Your task to perform on an android device: Open notification settings Image 0: 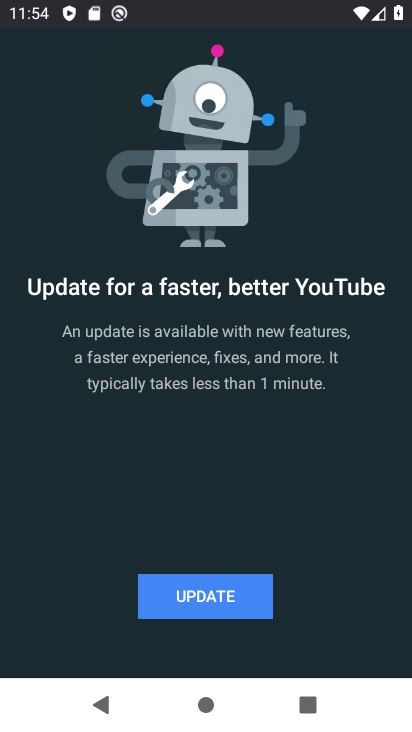
Step 0: press home button
Your task to perform on an android device: Open notification settings Image 1: 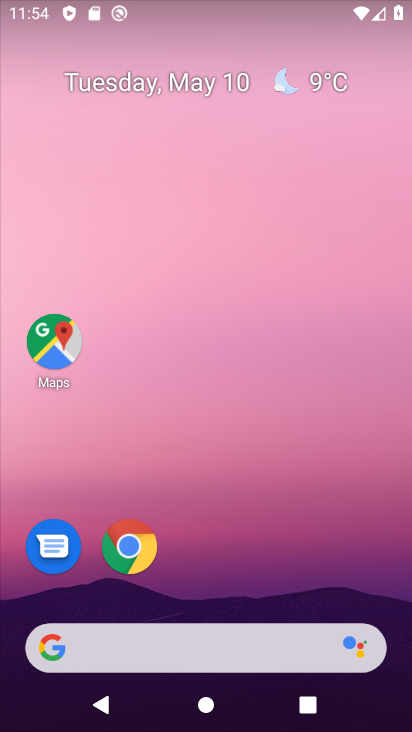
Step 1: drag from (176, 535) to (213, 203)
Your task to perform on an android device: Open notification settings Image 2: 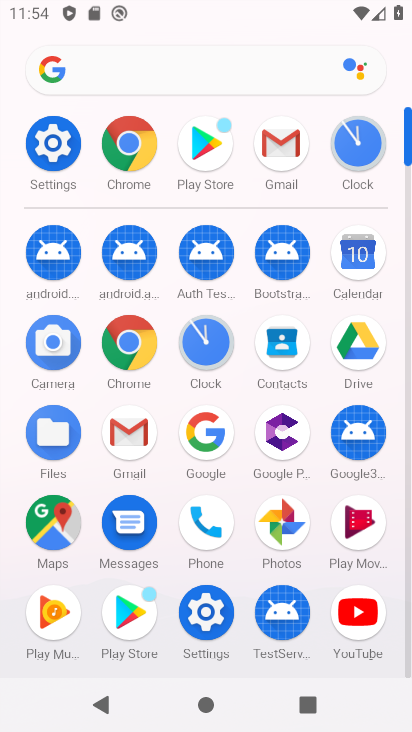
Step 2: click (69, 153)
Your task to perform on an android device: Open notification settings Image 3: 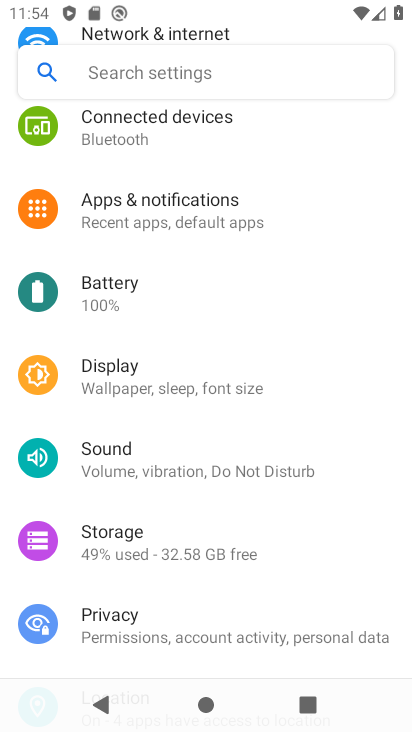
Step 3: click (192, 222)
Your task to perform on an android device: Open notification settings Image 4: 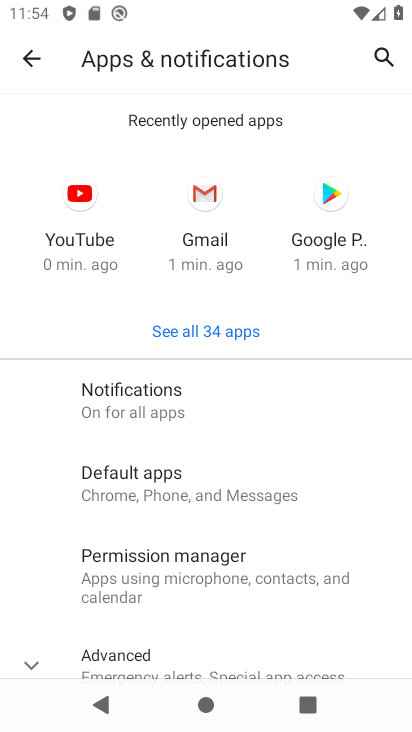
Step 4: click (234, 407)
Your task to perform on an android device: Open notification settings Image 5: 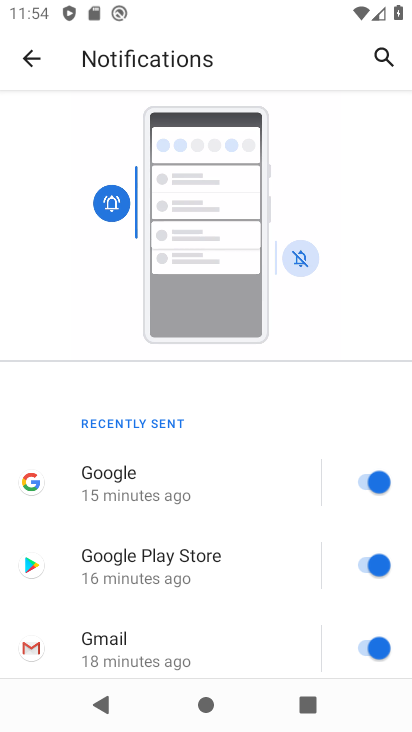
Step 5: task complete